Your task to perform on an android device: Show me popular videos on Youtube Image 0: 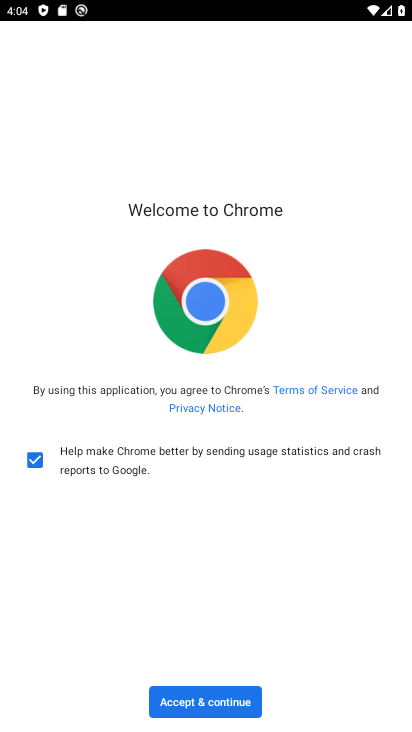
Step 0: click (216, 713)
Your task to perform on an android device: Show me popular videos on Youtube Image 1: 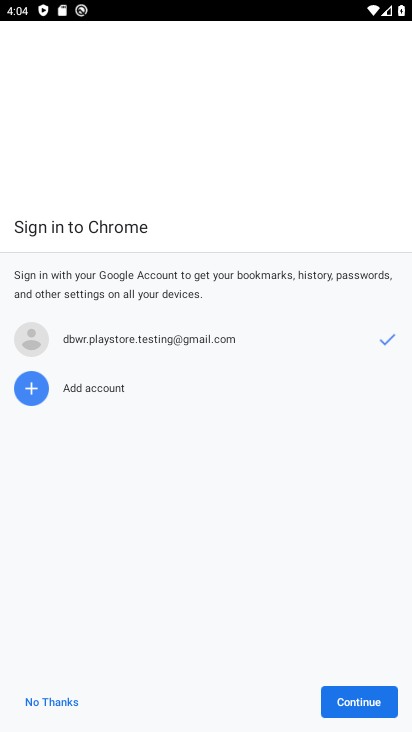
Step 1: press home button
Your task to perform on an android device: Show me popular videos on Youtube Image 2: 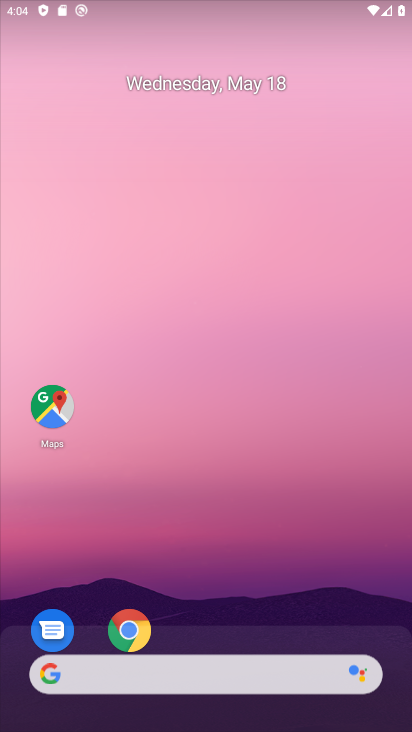
Step 2: drag from (278, 723) to (324, 197)
Your task to perform on an android device: Show me popular videos on Youtube Image 3: 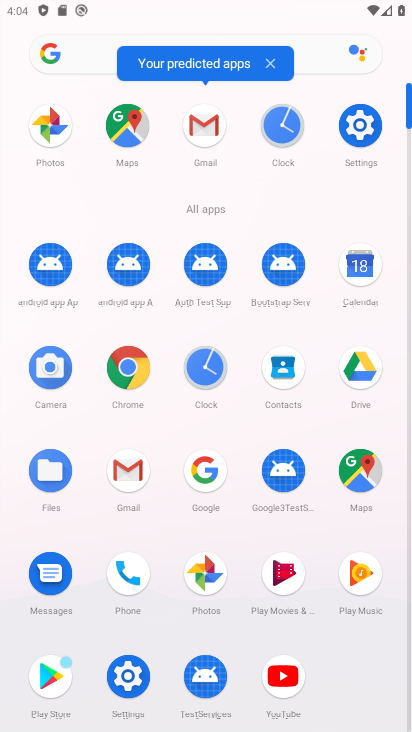
Step 3: click (287, 664)
Your task to perform on an android device: Show me popular videos on Youtube Image 4: 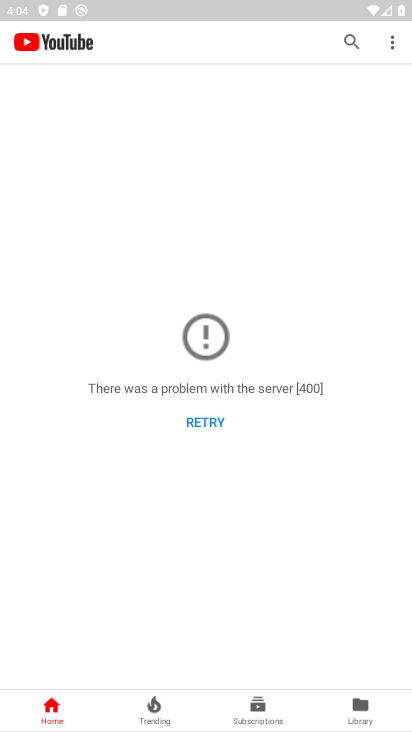
Step 4: click (353, 49)
Your task to perform on an android device: Show me popular videos on Youtube Image 5: 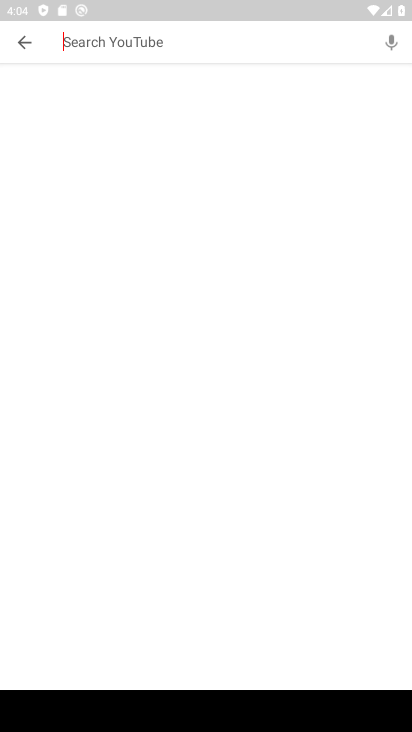
Step 5: drag from (388, 715) to (362, 630)
Your task to perform on an android device: Show me popular videos on Youtube Image 6: 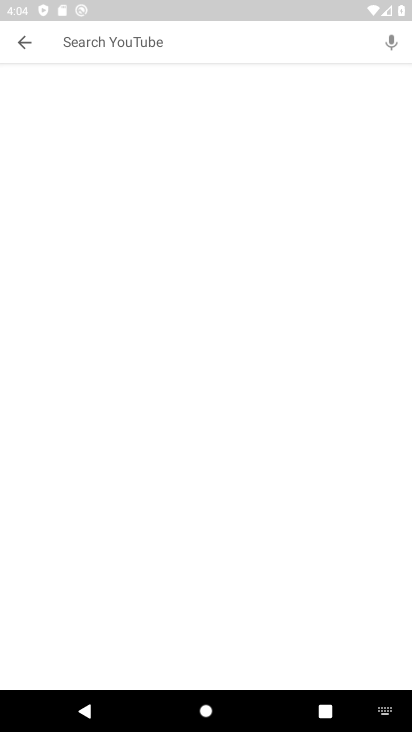
Step 6: click (385, 701)
Your task to perform on an android device: Show me popular videos on Youtube Image 7: 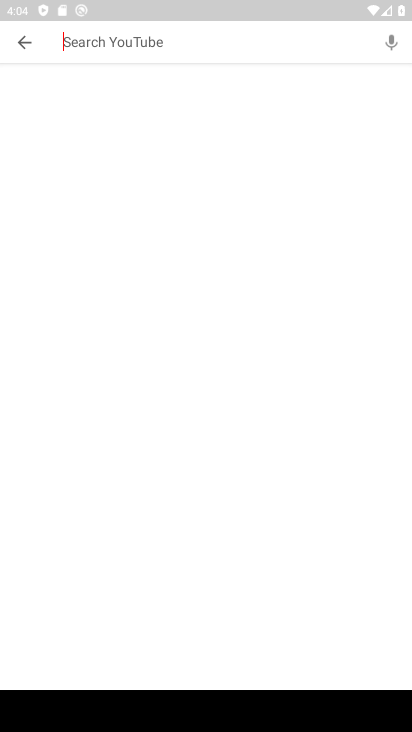
Step 7: drag from (356, 699) to (383, 520)
Your task to perform on an android device: Show me popular videos on Youtube Image 8: 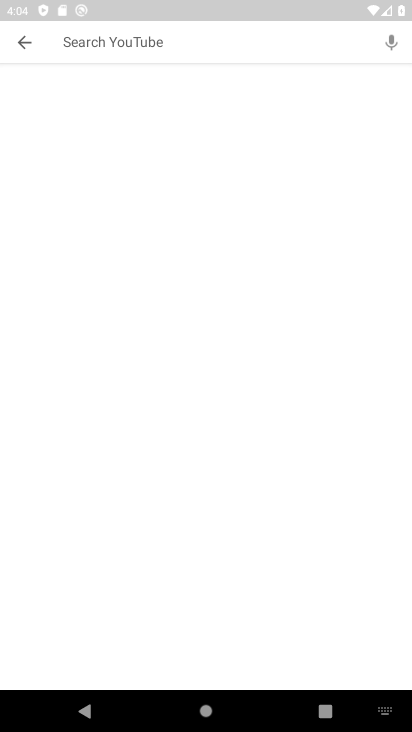
Step 8: click (391, 719)
Your task to perform on an android device: Show me popular videos on Youtube Image 9: 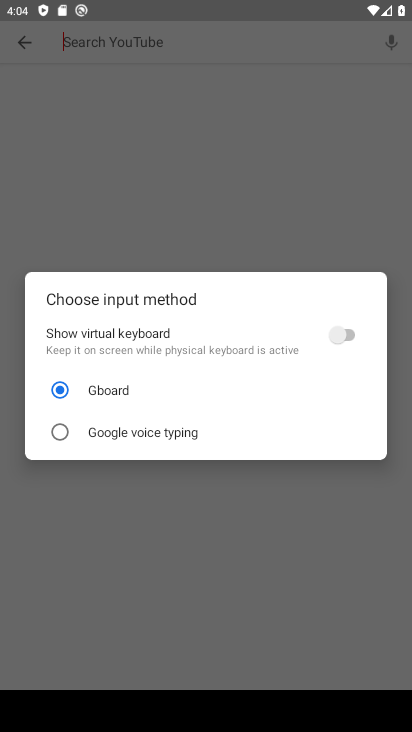
Step 9: click (346, 336)
Your task to perform on an android device: Show me popular videos on Youtube Image 10: 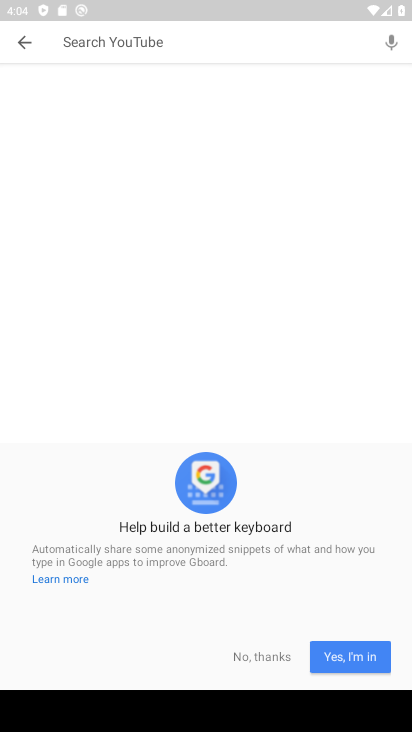
Step 10: click (249, 651)
Your task to perform on an android device: Show me popular videos on Youtube Image 11: 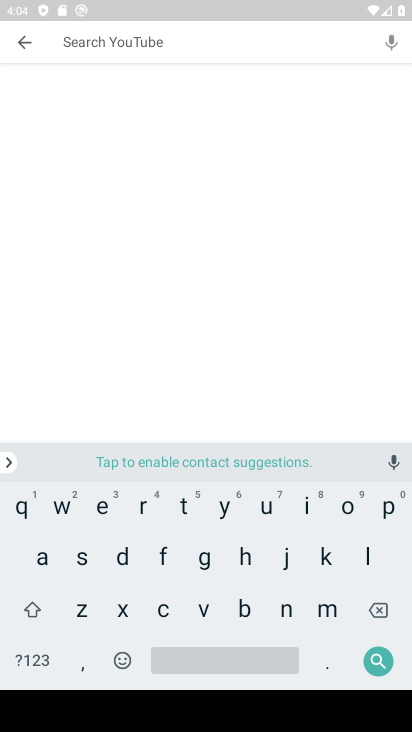
Step 11: click (221, 507)
Your task to perform on an android device: Show me popular videos on Youtube Image 12: 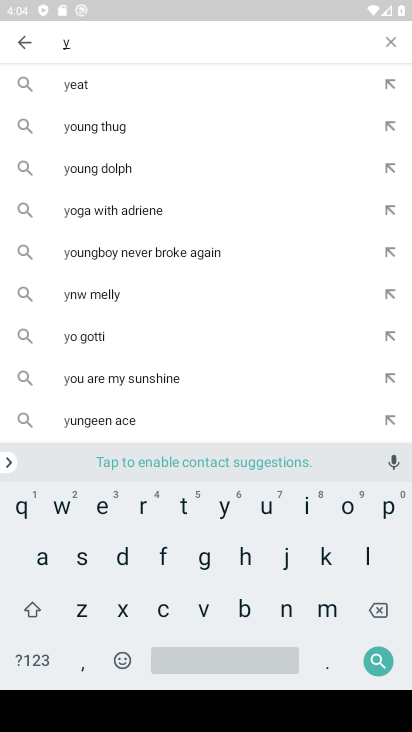
Step 12: click (376, 616)
Your task to perform on an android device: Show me popular videos on Youtube Image 13: 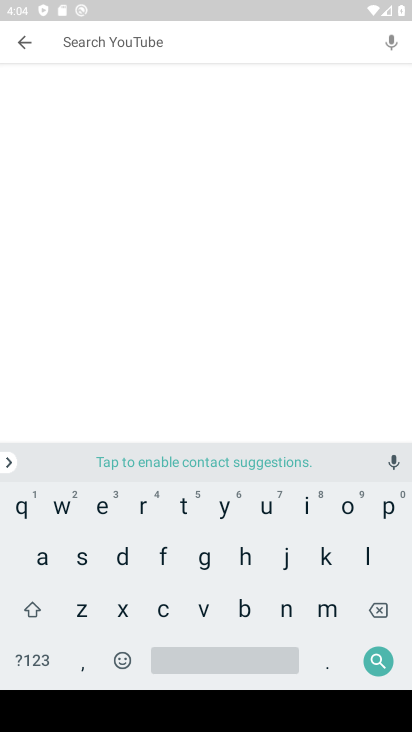
Step 13: click (383, 512)
Your task to perform on an android device: Show me popular videos on Youtube Image 14: 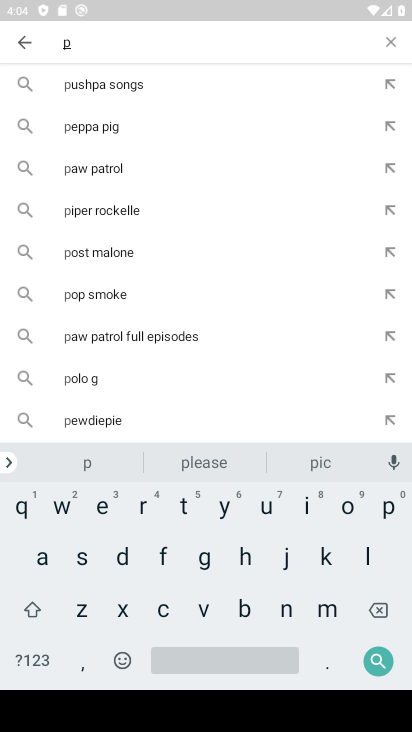
Step 14: click (348, 508)
Your task to perform on an android device: Show me popular videos on Youtube Image 15: 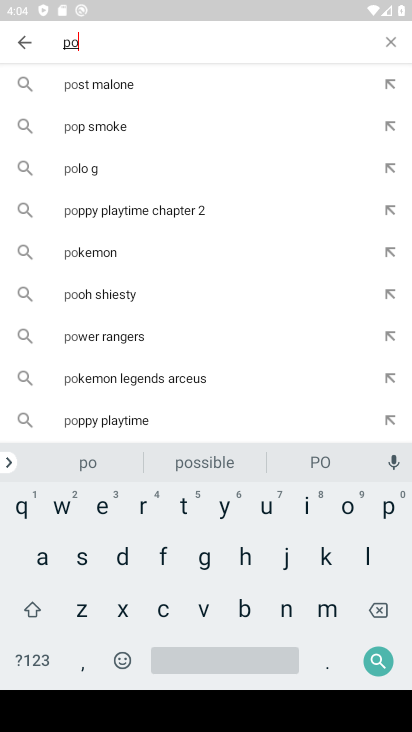
Step 15: click (382, 511)
Your task to perform on an android device: Show me popular videos on Youtube Image 16: 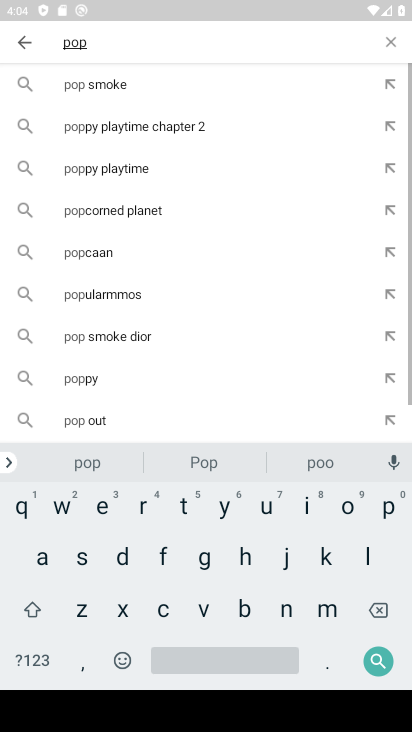
Step 16: click (266, 509)
Your task to perform on an android device: Show me popular videos on Youtube Image 17: 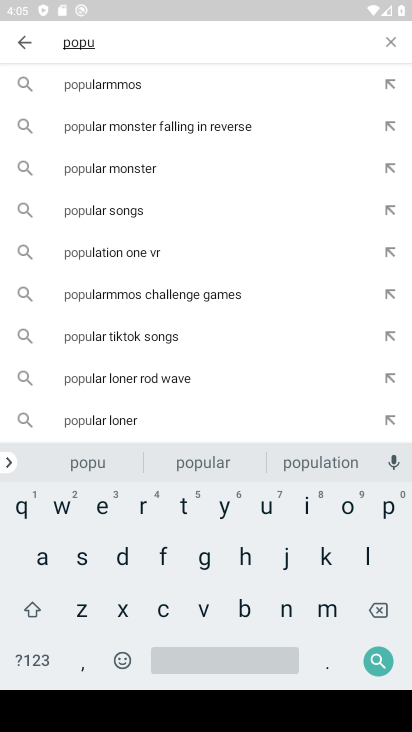
Step 17: click (199, 459)
Your task to perform on an android device: Show me popular videos on Youtube Image 18: 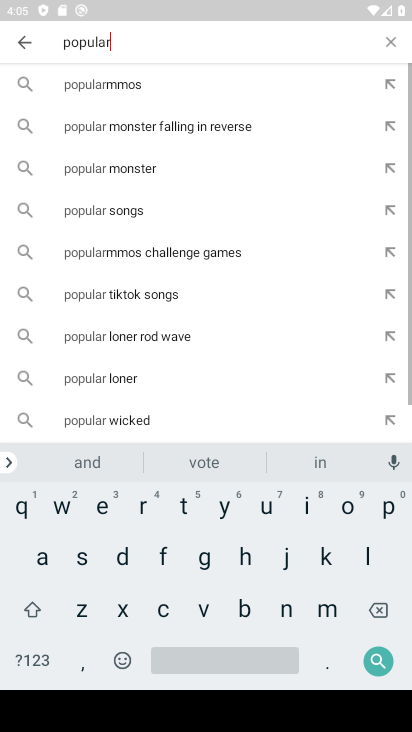
Step 18: click (203, 608)
Your task to perform on an android device: Show me popular videos on Youtube Image 19: 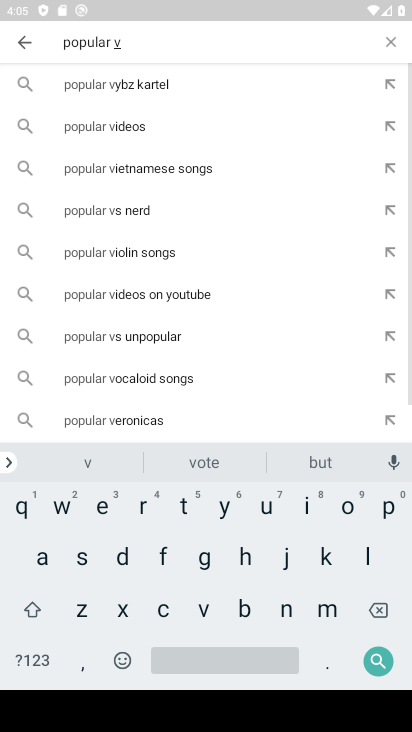
Step 19: click (125, 124)
Your task to perform on an android device: Show me popular videos on Youtube Image 20: 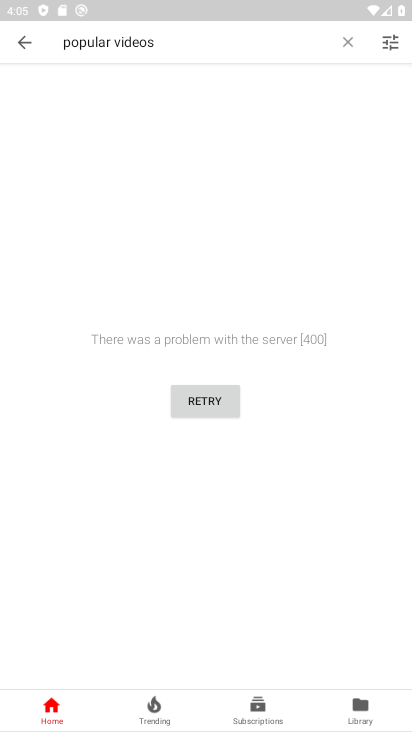
Step 20: task complete